Your task to perform on an android device: What is the news today? Image 0: 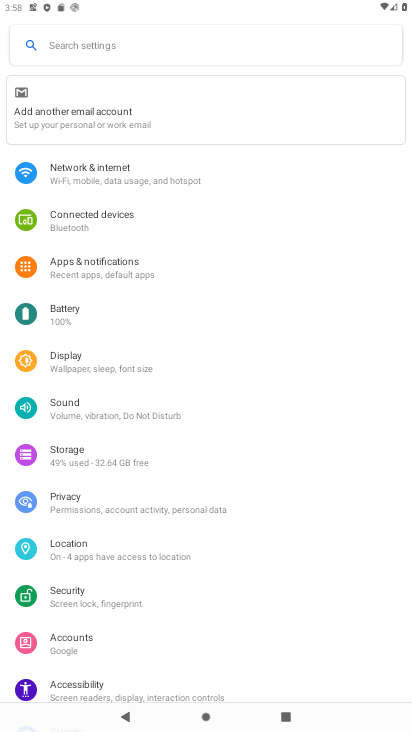
Step 0: press home button
Your task to perform on an android device: What is the news today? Image 1: 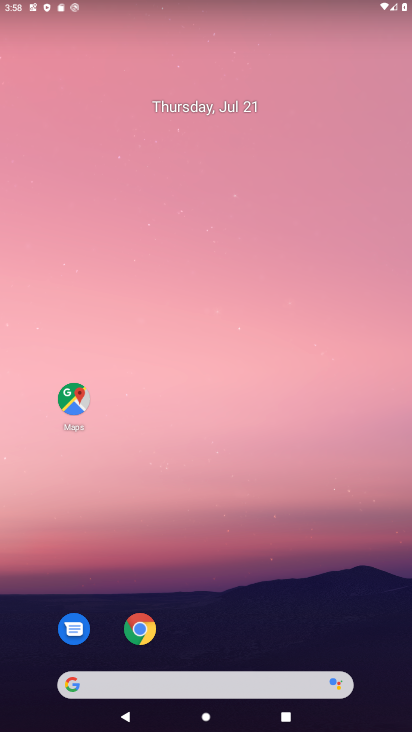
Step 1: drag from (283, 600) to (301, 117)
Your task to perform on an android device: What is the news today? Image 2: 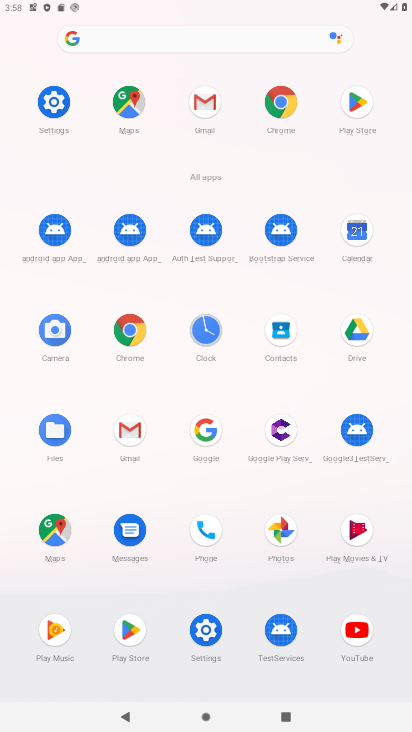
Step 2: click (114, 351)
Your task to perform on an android device: What is the news today? Image 3: 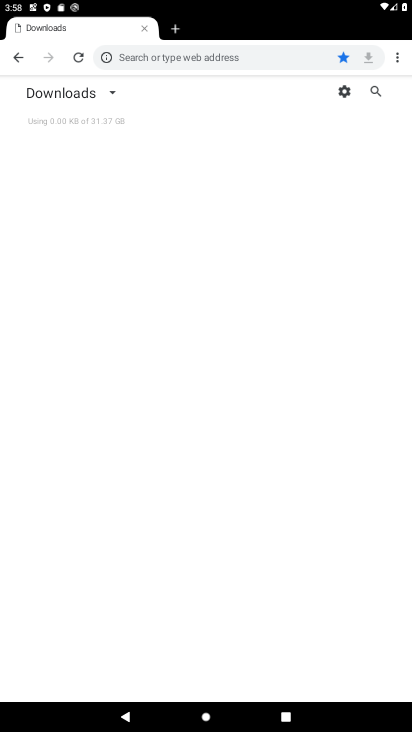
Step 3: click (11, 57)
Your task to perform on an android device: What is the news today? Image 4: 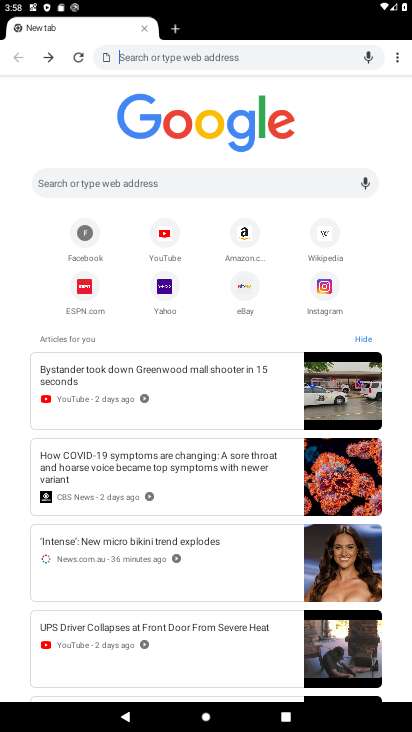
Step 4: task complete